Your task to perform on an android device: Open the Play Movies app and select the watchlist tab. Image 0: 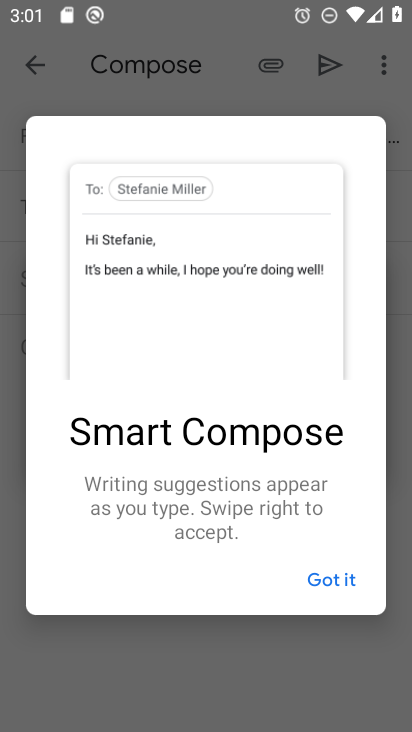
Step 0: press home button
Your task to perform on an android device: Open the Play Movies app and select the watchlist tab. Image 1: 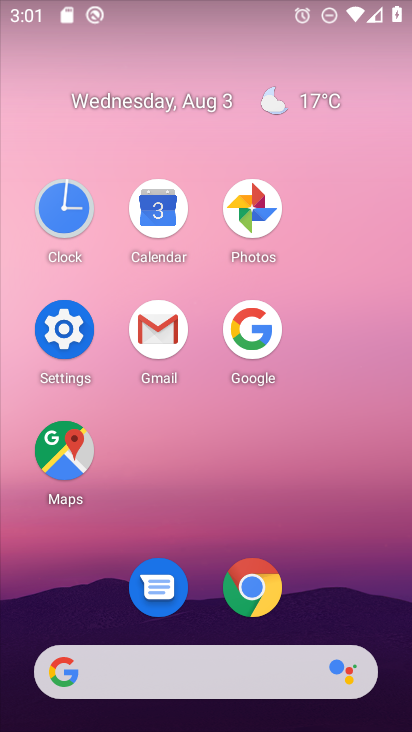
Step 1: drag from (333, 499) to (246, 61)
Your task to perform on an android device: Open the Play Movies app and select the watchlist tab. Image 2: 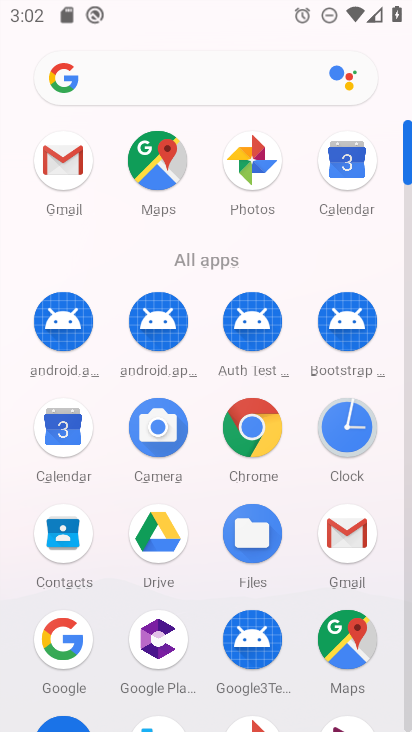
Step 2: drag from (267, 521) to (157, 189)
Your task to perform on an android device: Open the Play Movies app and select the watchlist tab. Image 3: 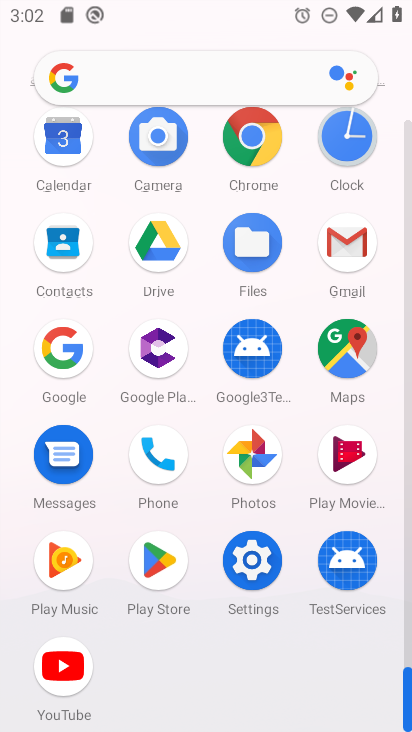
Step 3: click (349, 466)
Your task to perform on an android device: Open the Play Movies app and select the watchlist tab. Image 4: 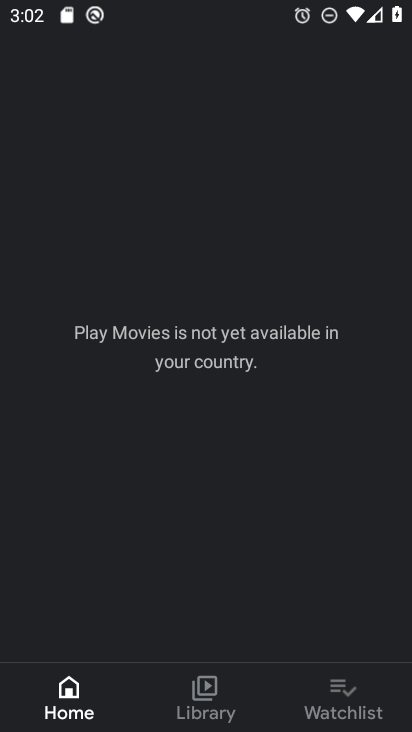
Step 4: click (343, 692)
Your task to perform on an android device: Open the Play Movies app and select the watchlist tab. Image 5: 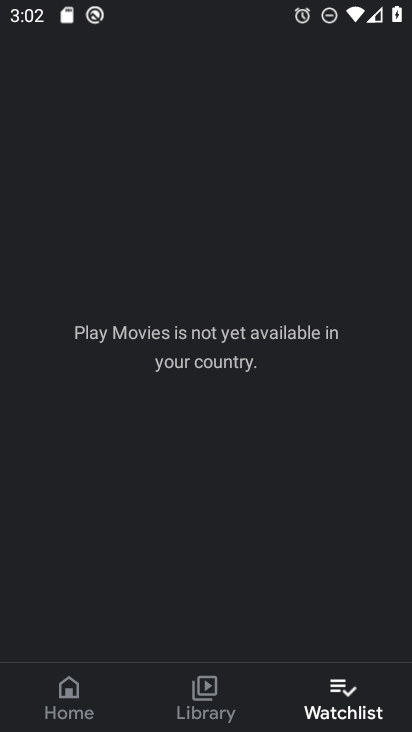
Step 5: task complete